Your task to perform on an android device: set an alarm Image 0: 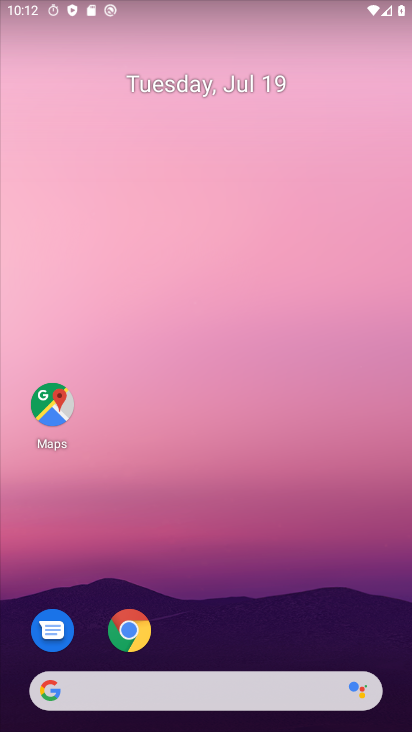
Step 0: press home button
Your task to perform on an android device: set an alarm Image 1: 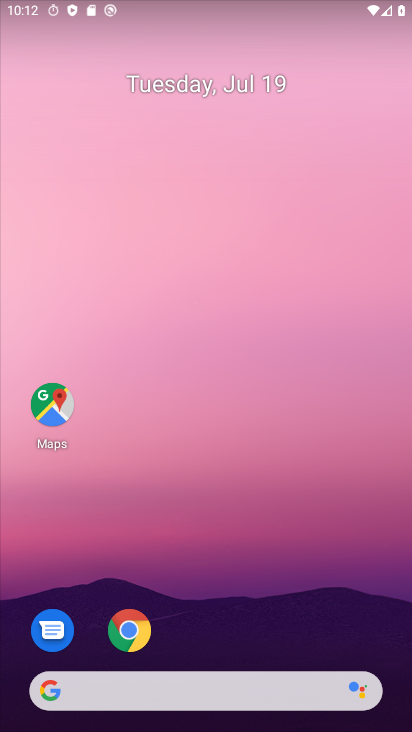
Step 1: drag from (259, 647) to (269, 42)
Your task to perform on an android device: set an alarm Image 2: 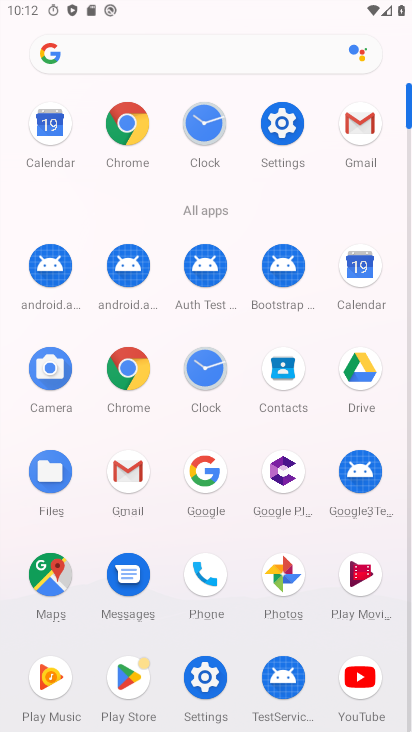
Step 2: click (200, 132)
Your task to perform on an android device: set an alarm Image 3: 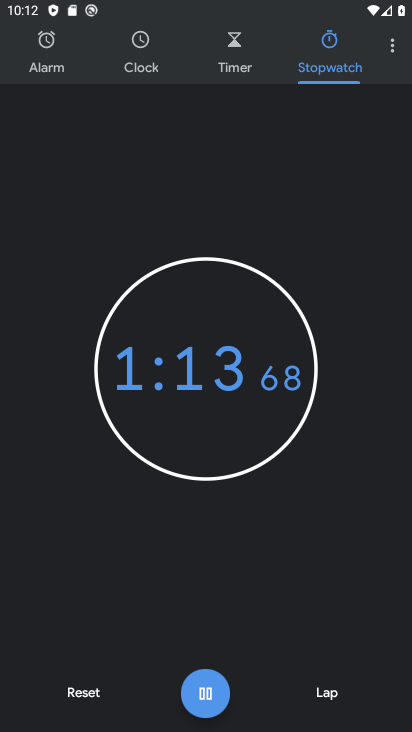
Step 3: click (52, 57)
Your task to perform on an android device: set an alarm Image 4: 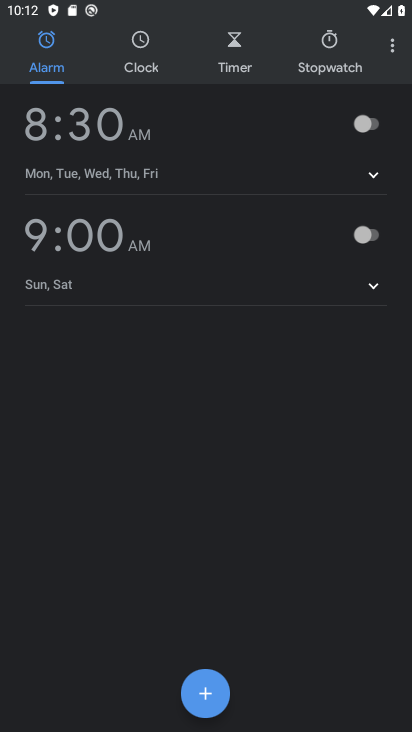
Step 4: click (352, 130)
Your task to perform on an android device: set an alarm Image 5: 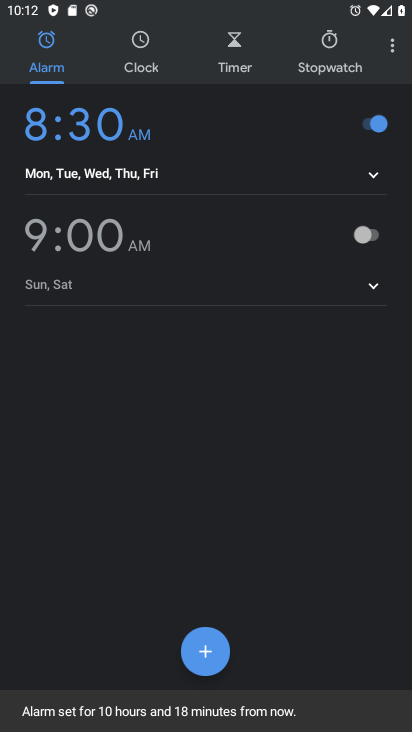
Step 5: task complete